Your task to perform on an android device: turn notification dots off Image 0: 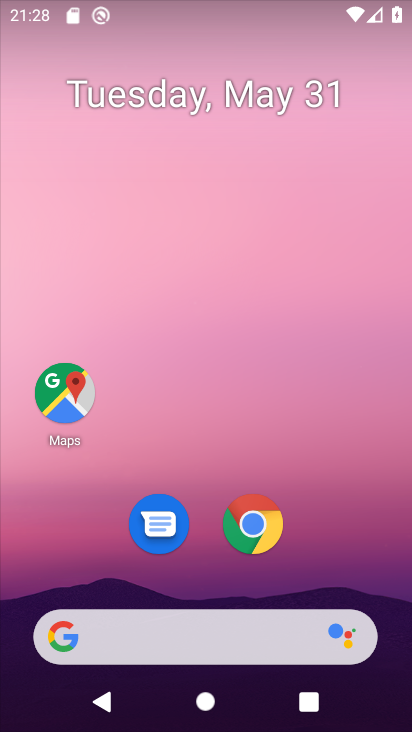
Step 0: drag from (252, 401) to (279, 0)
Your task to perform on an android device: turn notification dots off Image 1: 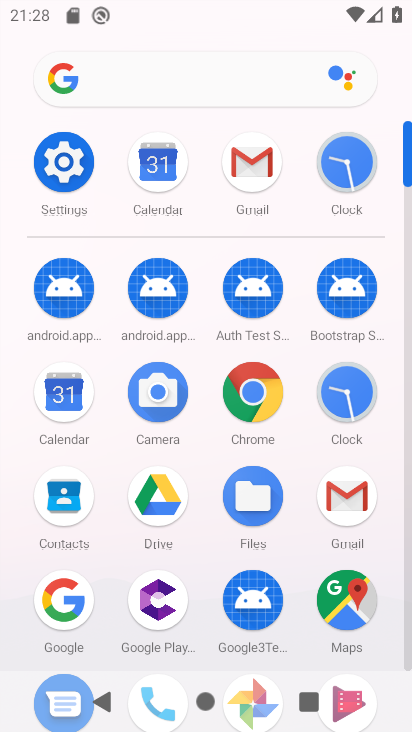
Step 1: click (69, 159)
Your task to perform on an android device: turn notification dots off Image 2: 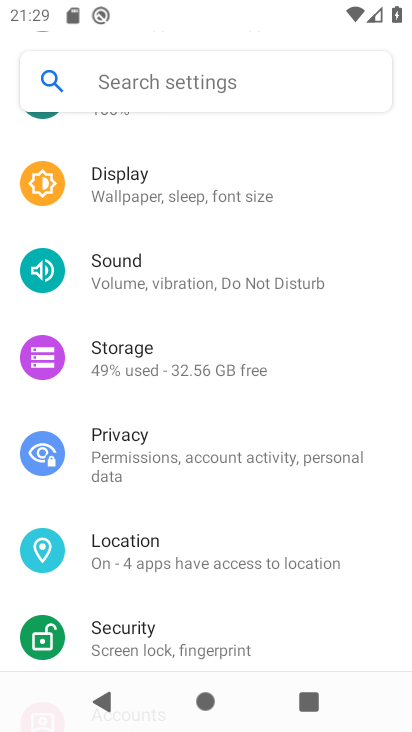
Step 2: drag from (216, 245) to (230, 579)
Your task to perform on an android device: turn notification dots off Image 3: 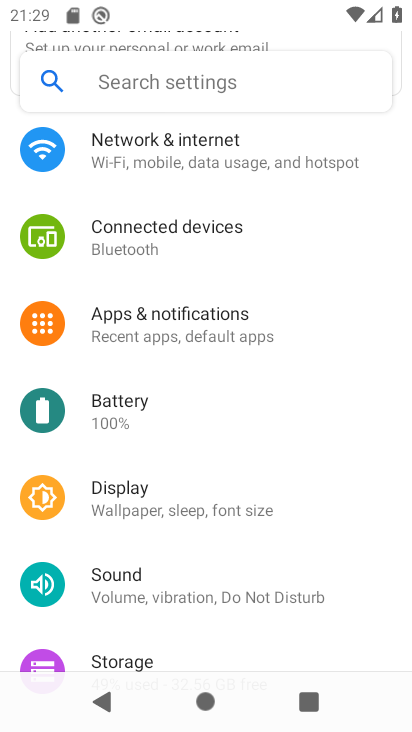
Step 3: click (212, 326)
Your task to perform on an android device: turn notification dots off Image 4: 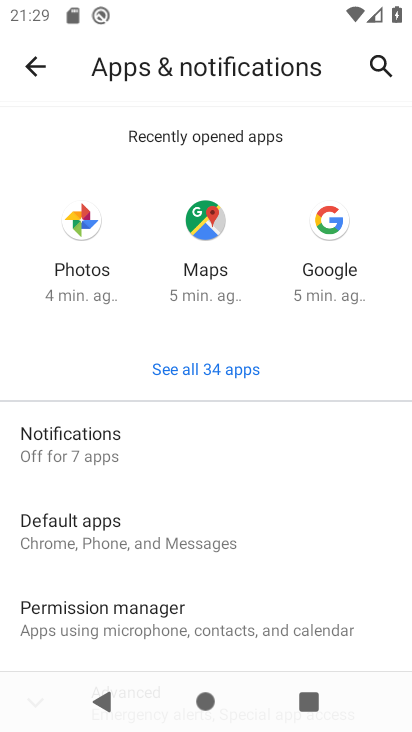
Step 4: click (194, 439)
Your task to perform on an android device: turn notification dots off Image 5: 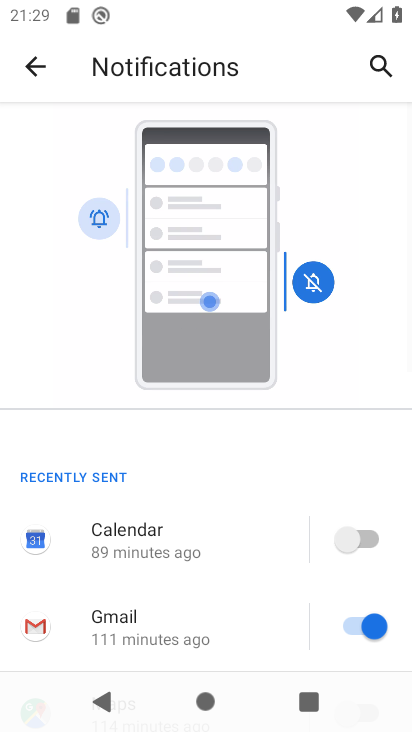
Step 5: drag from (208, 511) to (260, 56)
Your task to perform on an android device: turn notification dots off Image 6: 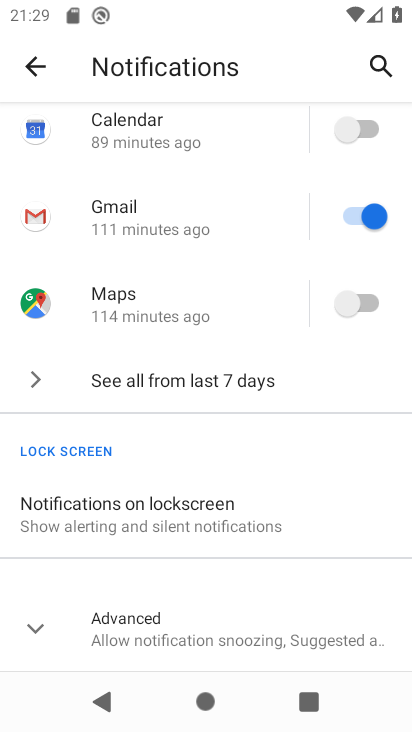
Step 6: click (42, 628)
Your task to perform on an android device: turn notification dots off Image 7: 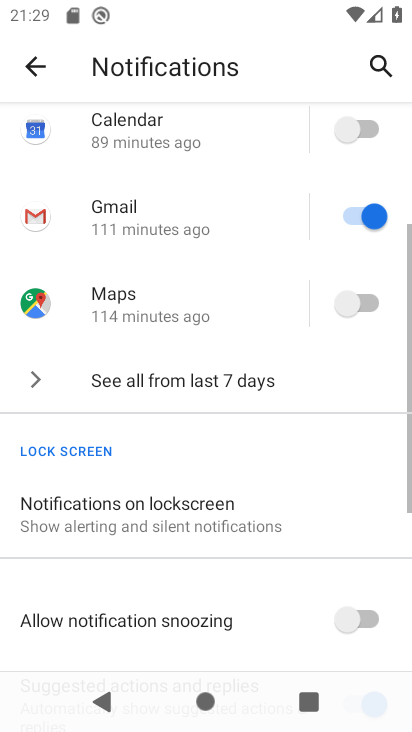
Step 7: drag from (214, 557) to (262, 173)
Your task to perform on an android device: turn notification dots off Image 8: 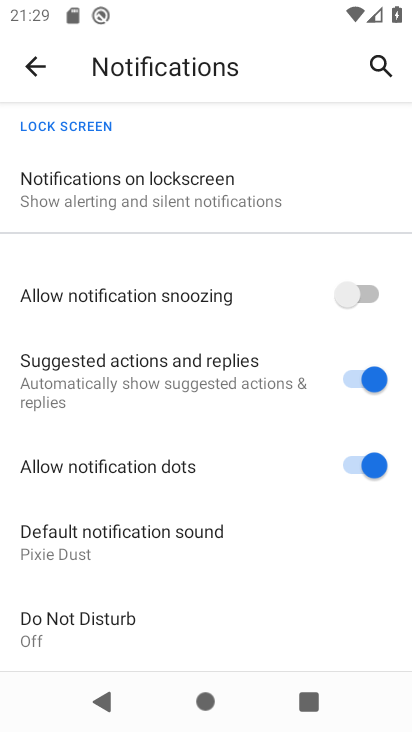
Step 8: click (358, 462)
Your task to perform on an android device: turn notification dots off Image 9: 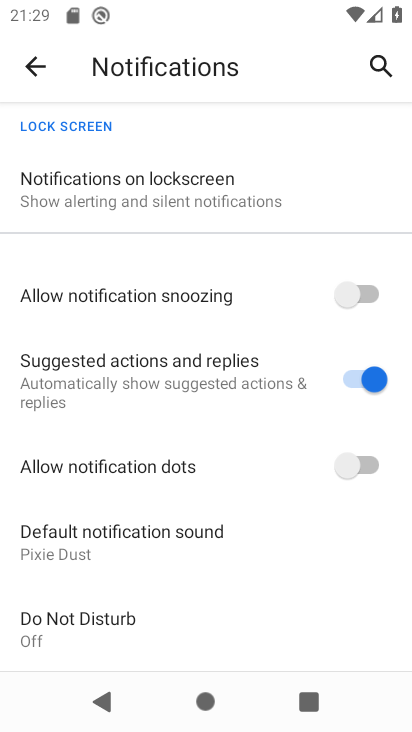
Step 9: task complete